Your task to perform on an android device: uninstall "Duolingo: language lessons" Image 0: 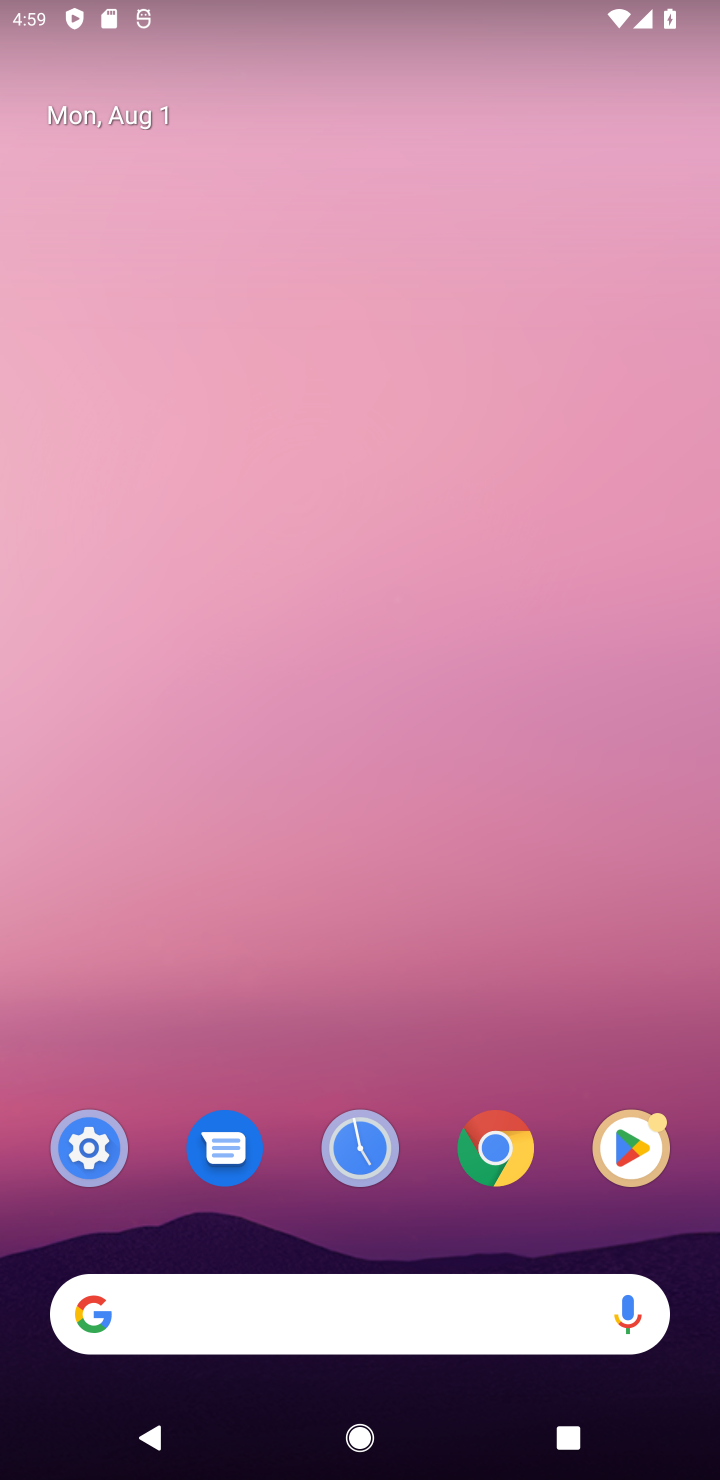
Step 0: drag from (469, 871) to (473, 751)
Your task to perform on an android device: uninstall "Duolingo: language lessons" Image 1: 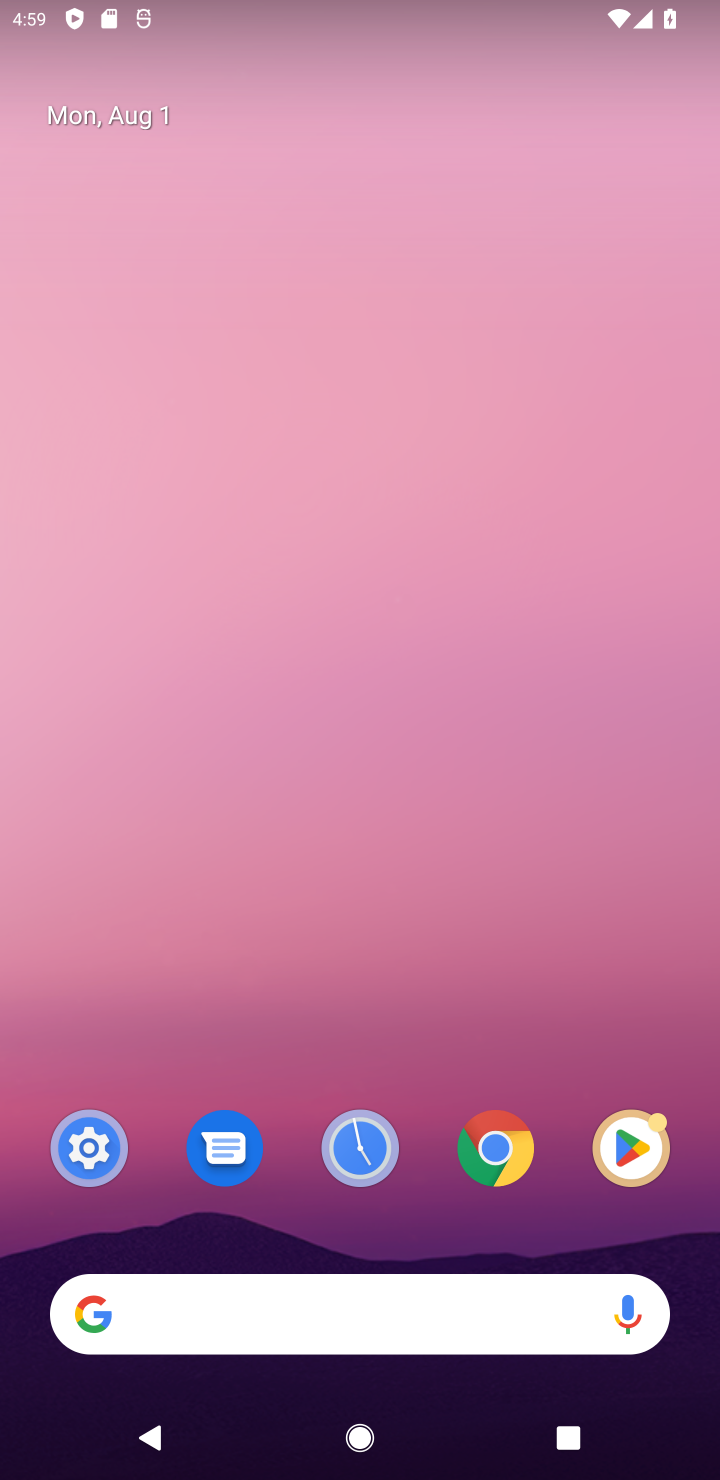
Step 1: drag from (468, 1298) to (506, 17)
Your task to perform on an android device: uninstall "Duolingo: language lessons" Image 2: 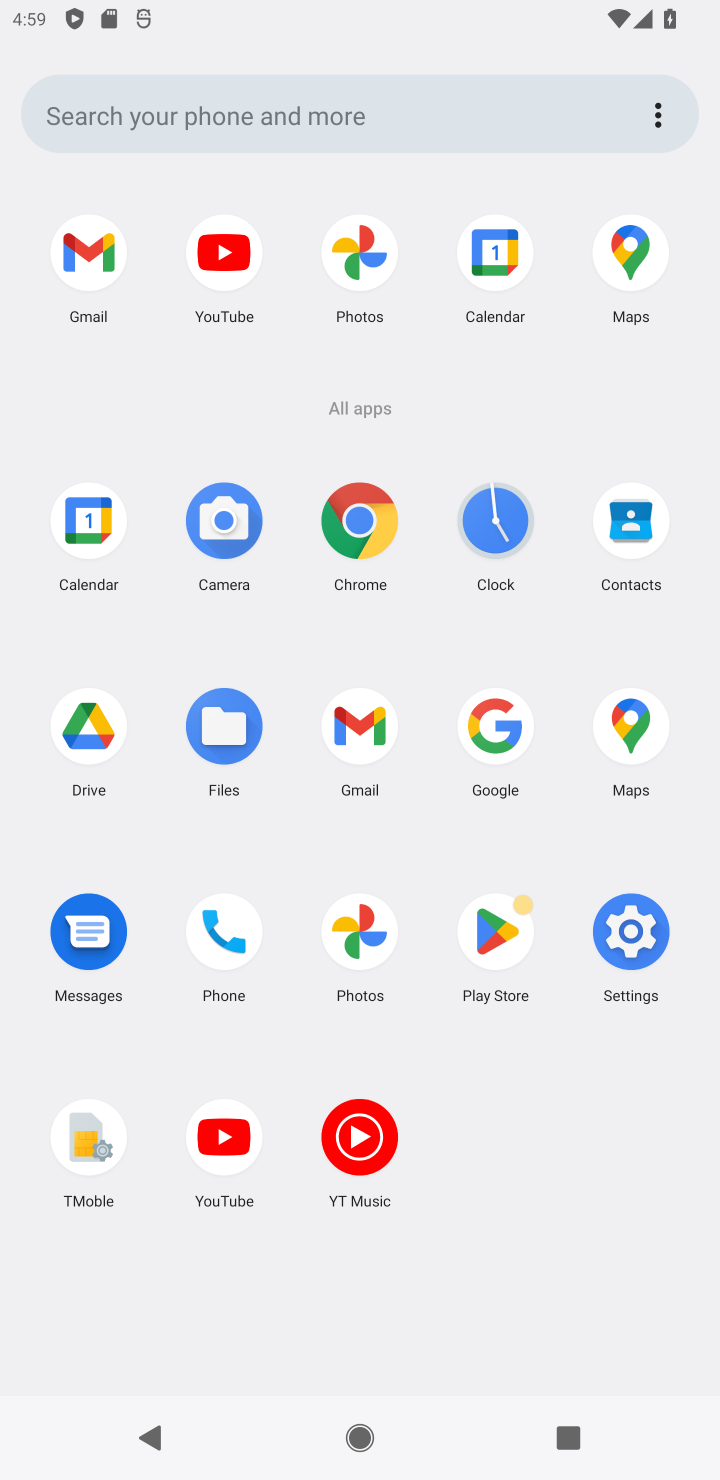
Step 2: click (504, 908)
Your task to perform on an android device: uninstall "Duolingo: language lessons" Image 3: 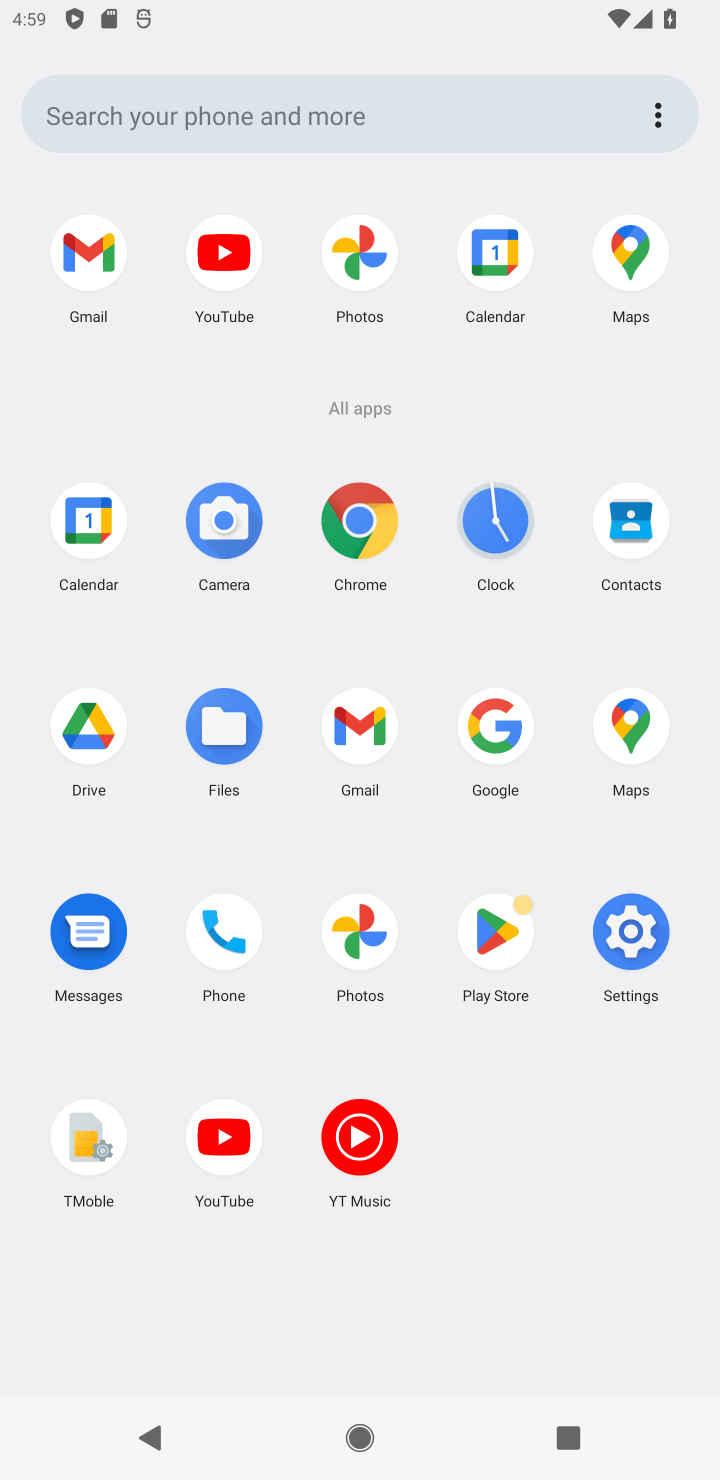
Step 3: click (504, 908)
Your task to perform on an android device: uninstall "Duolingo: language lessons" Image 4: 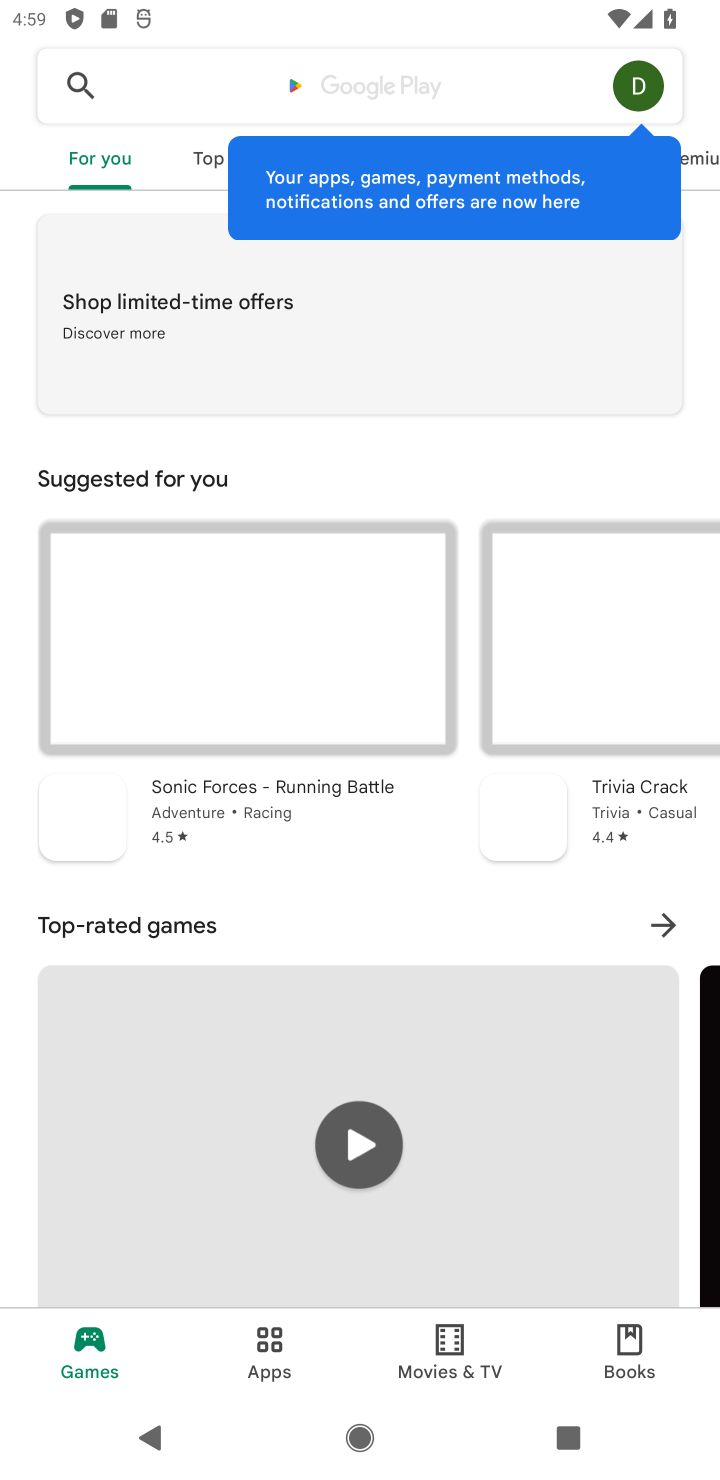
Step 4: click (408, 78)
Your task to perform on an android device: uninstall "Duolingo: language lessons" Image 5: 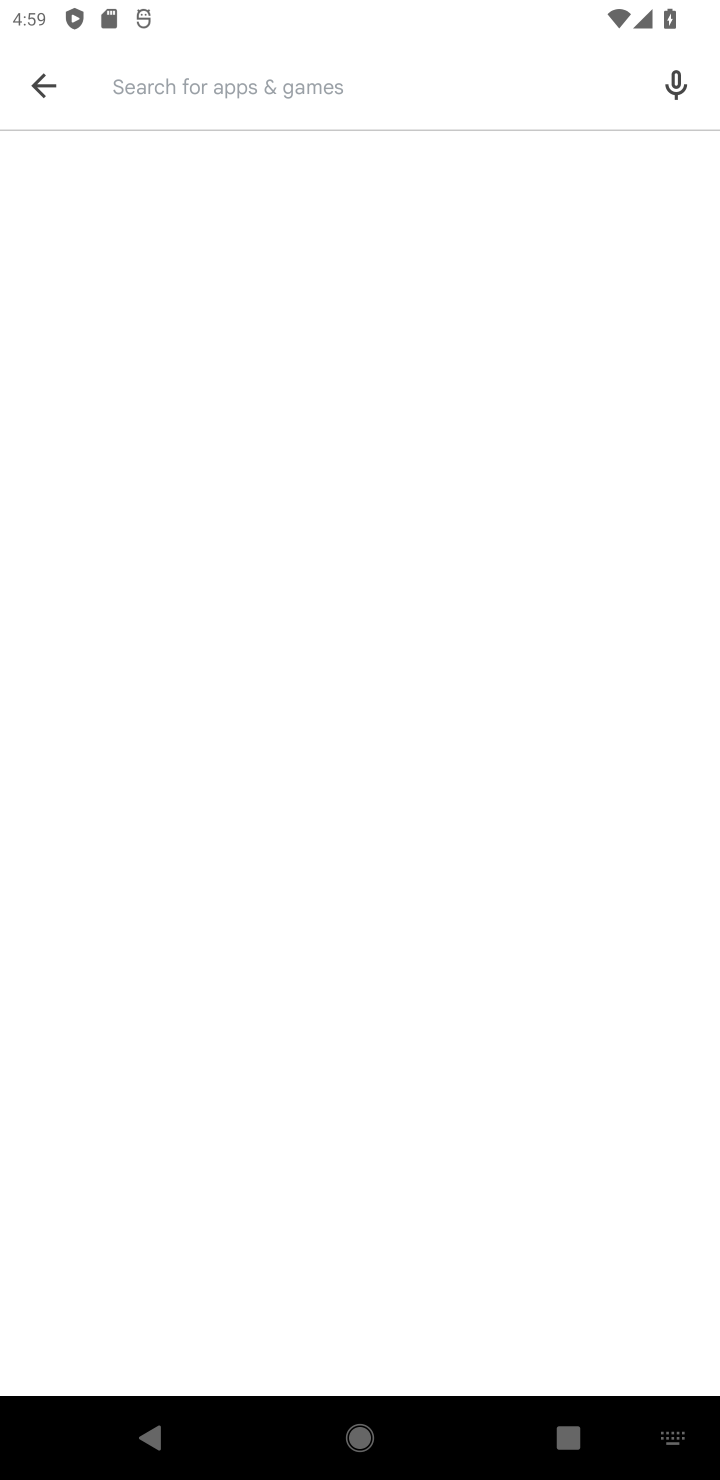
Step 5: type "Duolingo: language lessons"
Your task to perform on an android device: uninstall "Duolingo: language lessons" Image 6: 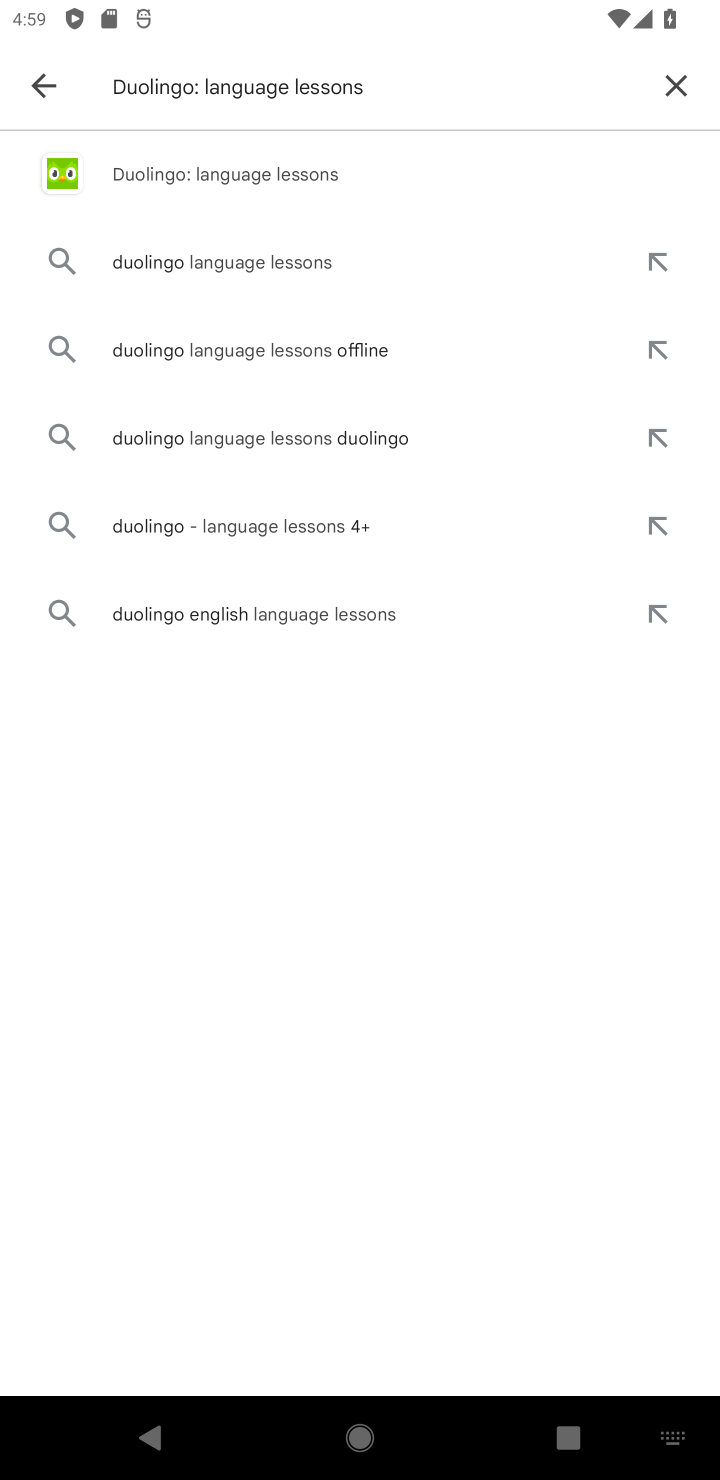
Step 6: click (409, 173)
Your task to perform on an android device: uninstall "Duolingo: language lessons" Image 7: 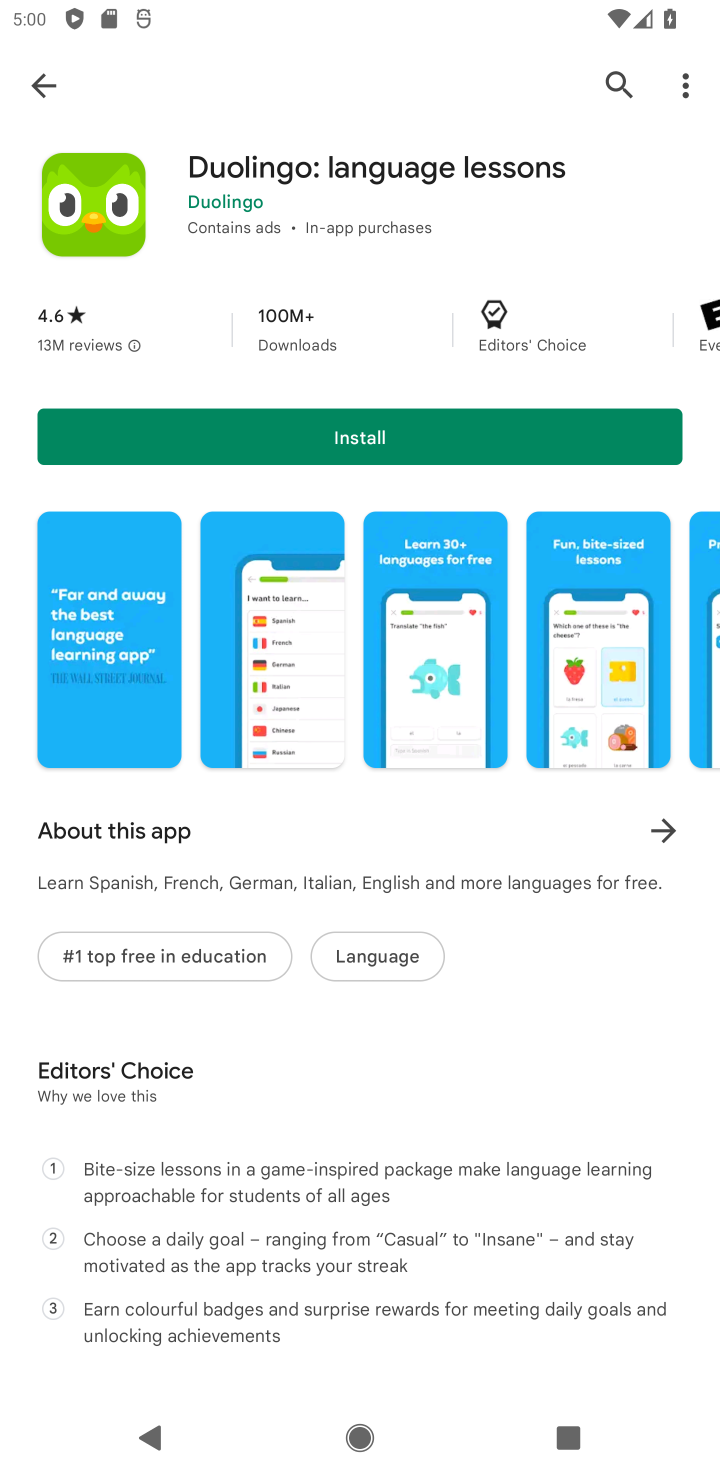
Step 7: task complete